Your task to perform on an android device: Open Google Chrome Image 0: 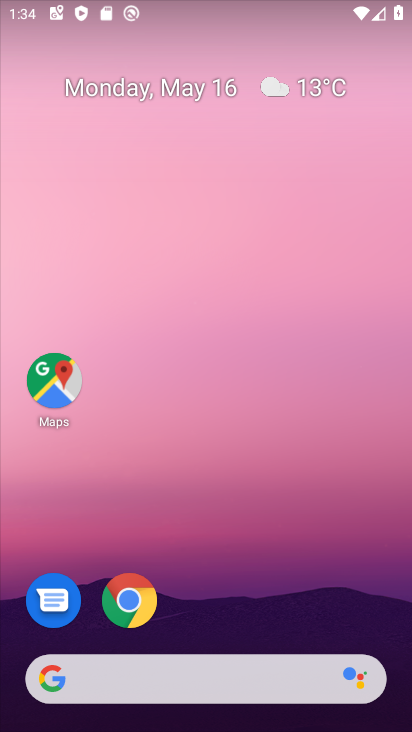
Step 0: click (146, 614)
Your task to perform on an android device: Open Google Chrome Image 1: 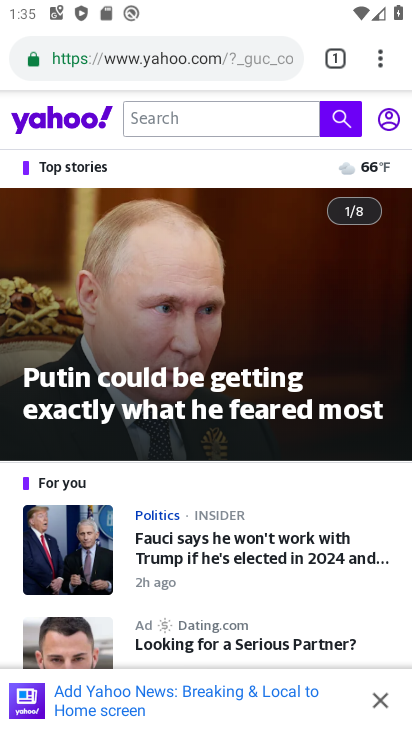
Step 1: task complete